Your task to perform on an android device: Check the news Image 0: 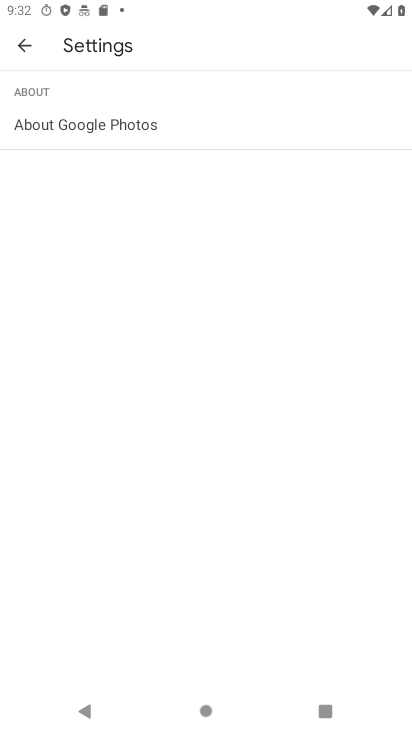
Step 0: press back button
Your task to perform on an android device: Check the news Image 1: 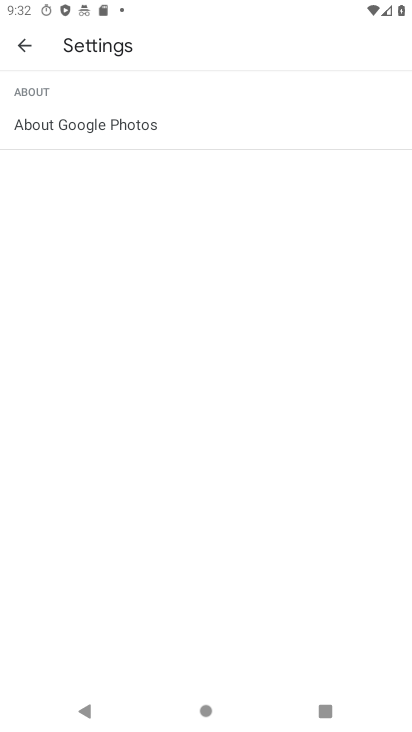
Step 1: press back button
Your task to perform on an android device: Check the news Image 2: 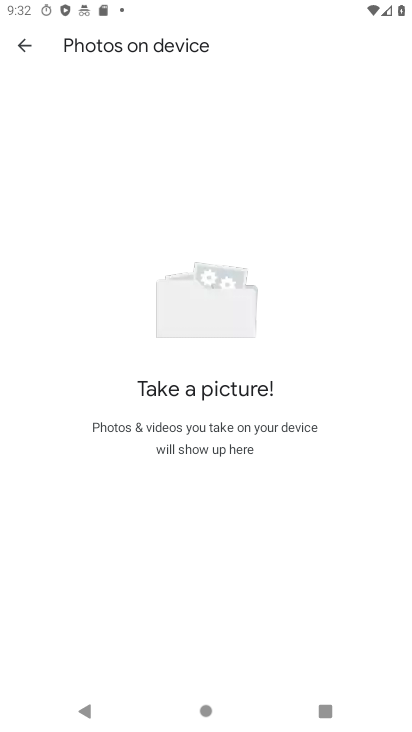
Step 2: press back button
Your task to perform on an android device: Check the news Image 3: 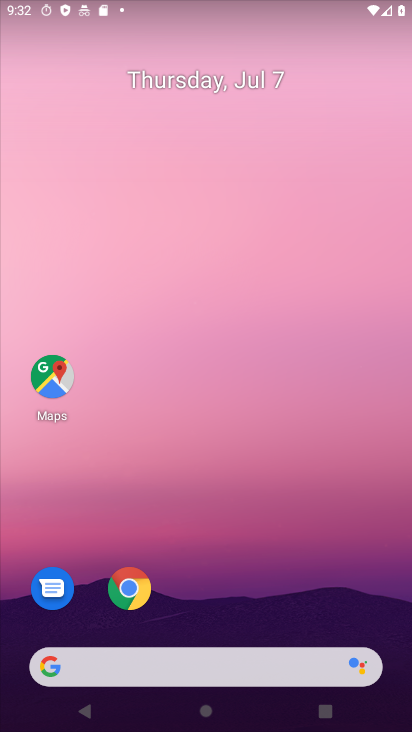
Step 3: drag from (251, 599) to (206, 257)
Your task to perform on an android device: Check the news Image 4: 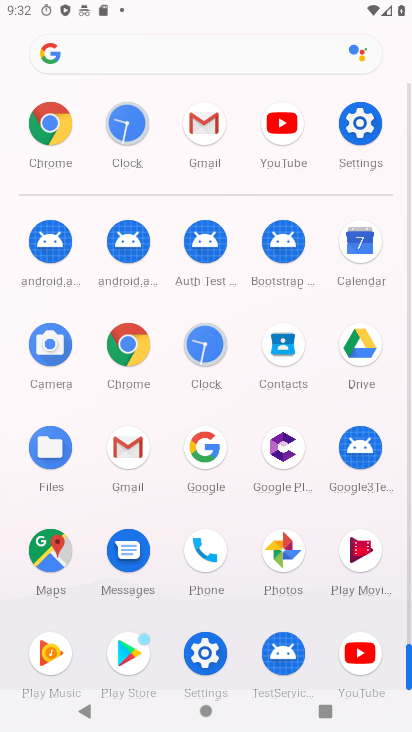
Step 4: click (50, 121)
Your task to perform on an android device: Check the news Image 5: 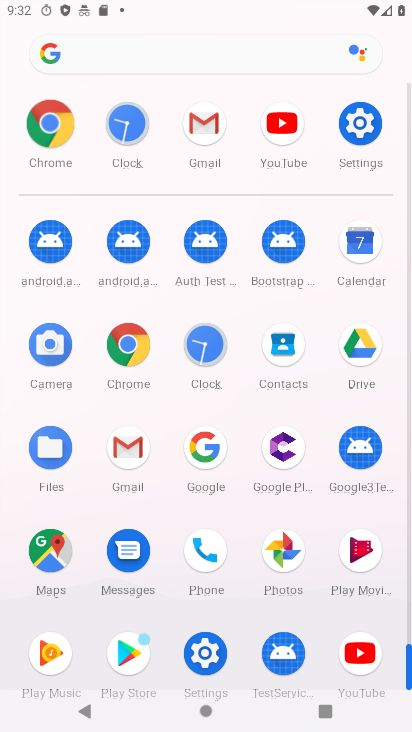
Step 5: click (52, 123)
Your task to perform on an android device: Check the news Image 6: 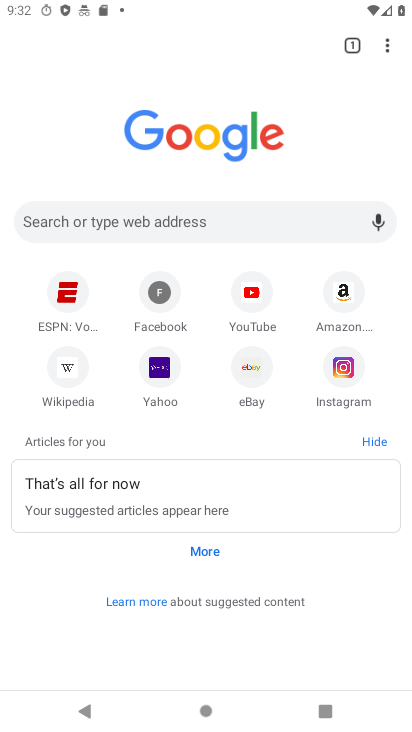
Step 6: task complete